Your task to perform on an android device: Set the phone to "Do not disturb". Image 0: 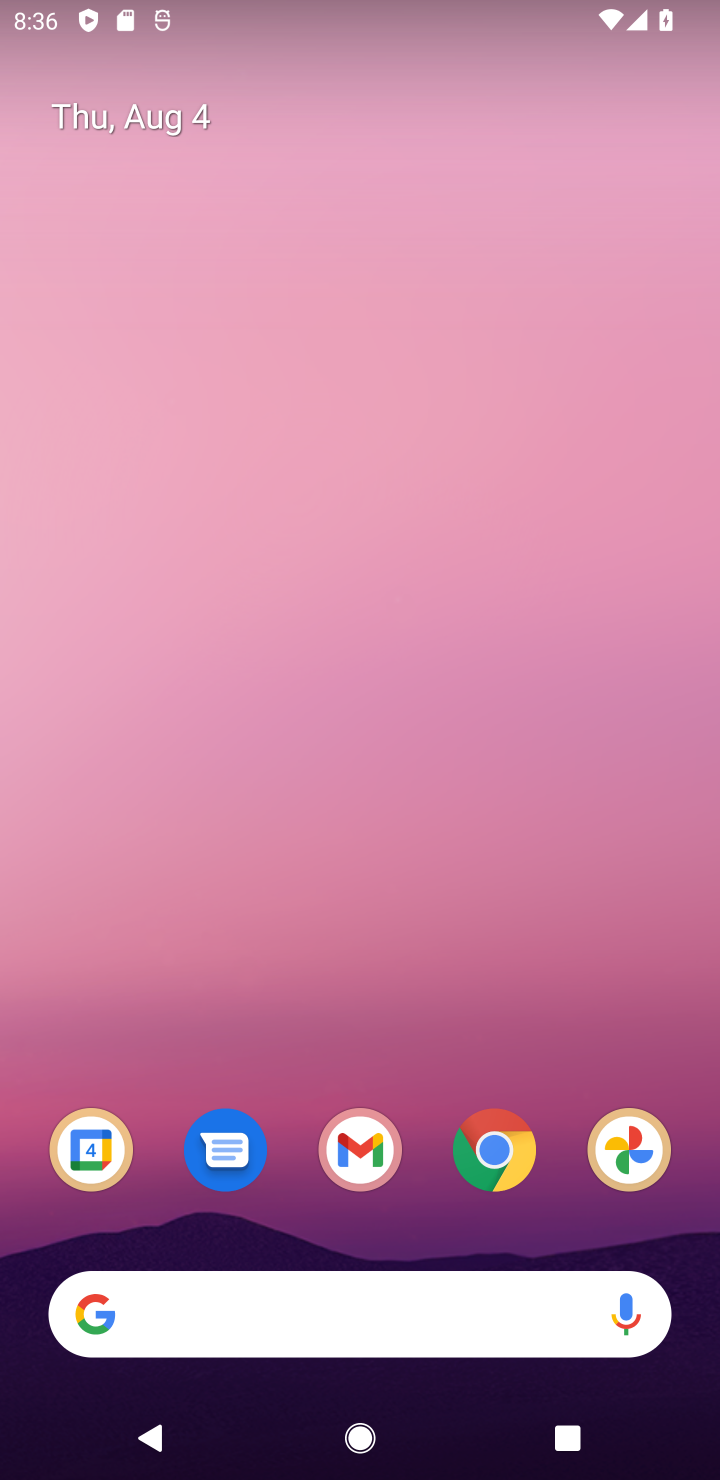
Step 0: drag from (251, 11) to (270, 1166)
Your task to perform on an android device: Set the phone to "Do not disturb". Image 1: 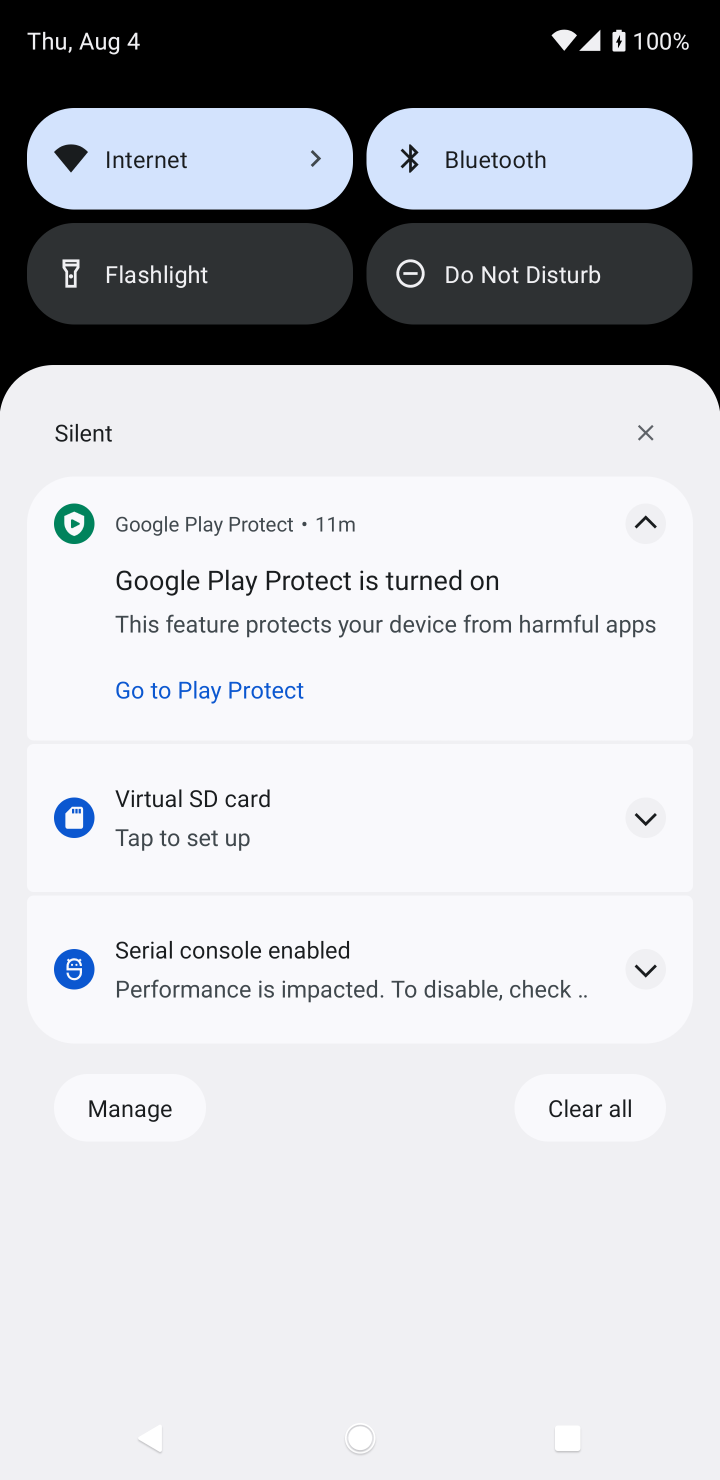
Step 1: click (406, 279)
Your task to perform on an android device: Set the phone to "Do not disturb". Image 2: 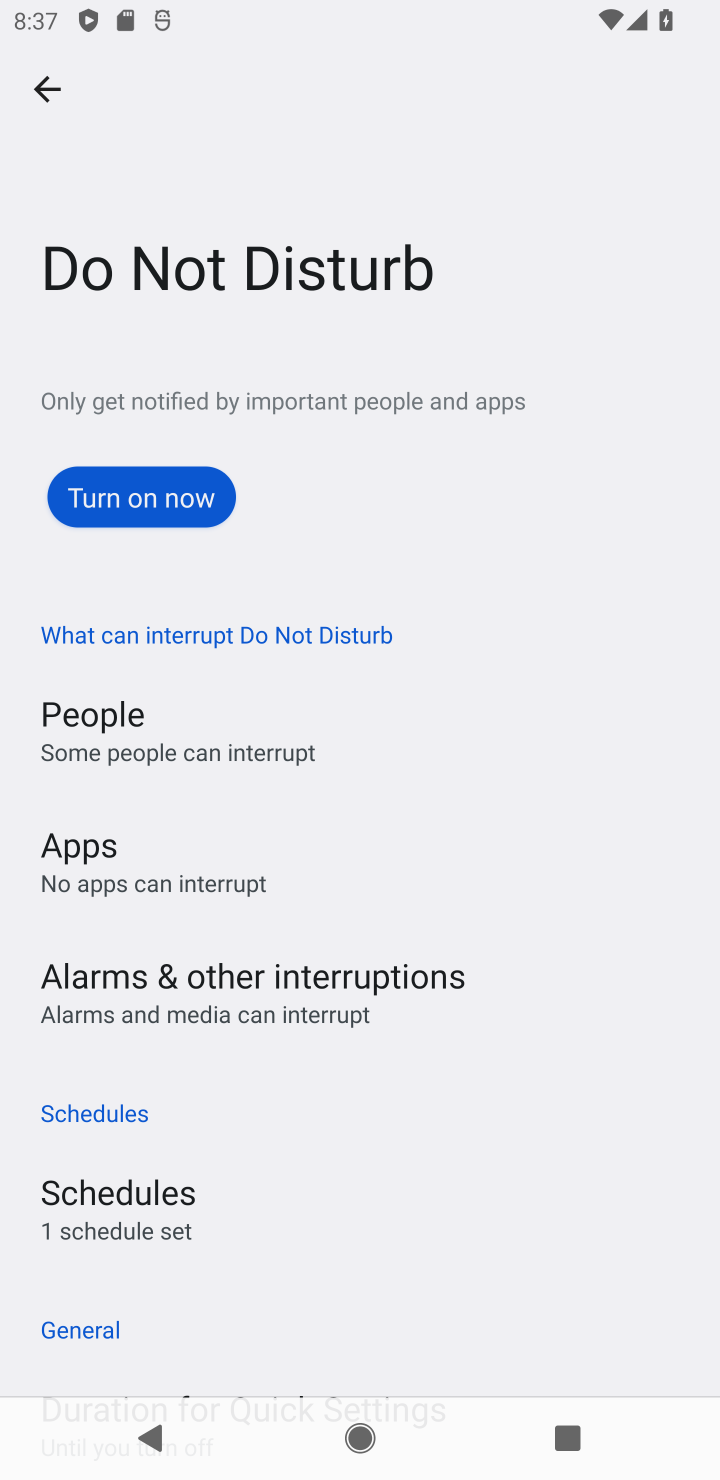
Step 2: task complete